Your task to perform on an android device: visit the assistant section in the google photos Image 0: 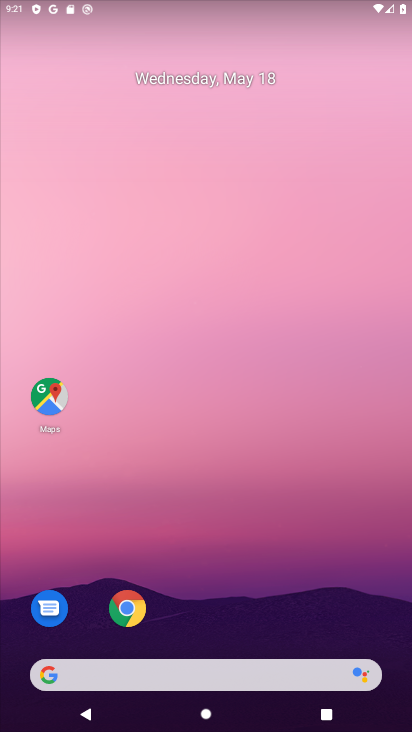
Step 0: drag from (305, 626) to (133, 13)
Your task to perform on an android device: visit the assistant section in the google photos Image 1: 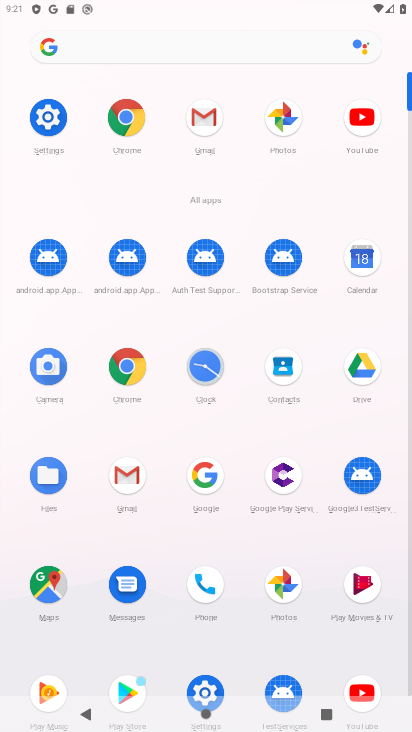
Step 1: click (301, 165)
Your task to perform on an android device: visit the assistant section in the google photos Image 2: 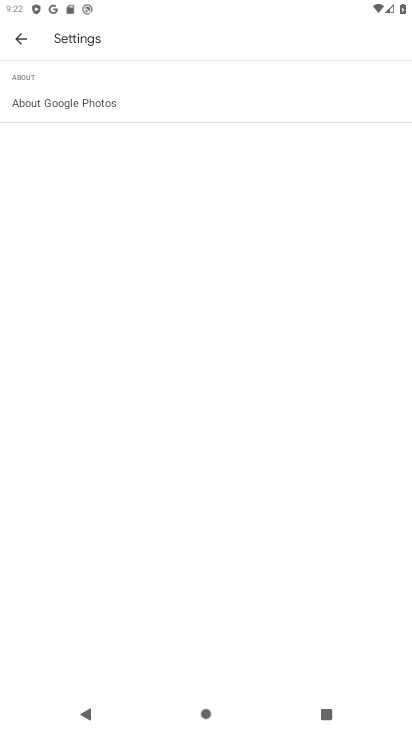
Step 2: click (23, 32)
Your task to perform on an android device: visit the assistant section in the google photos Image 3: 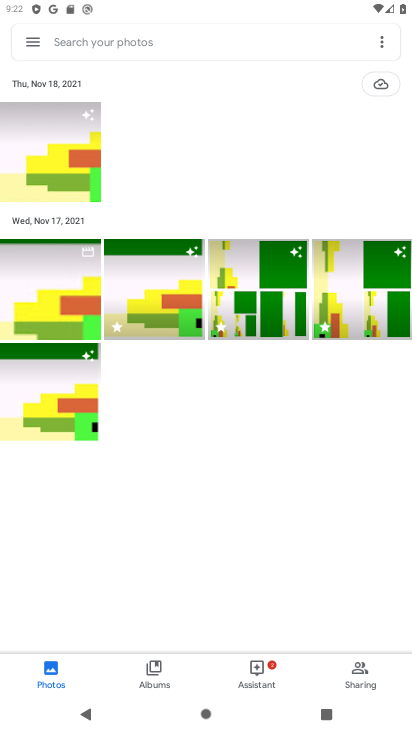
Step 3: click (357, 671)
Your task to perform on an android device: visit the assistant section in the google photos Image 4: 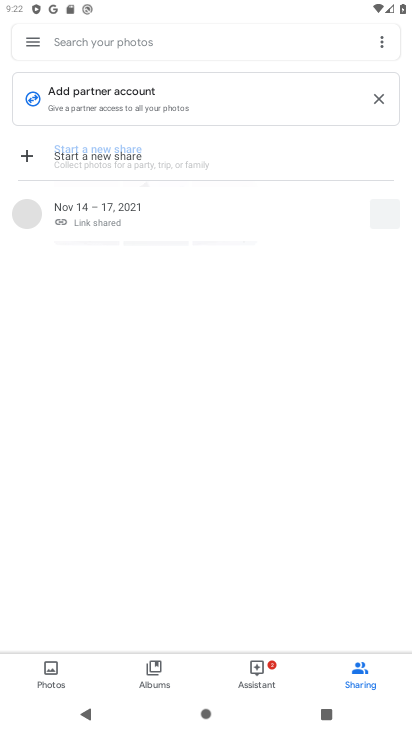
Step 4: click (267, 673)
Your task to perform on an android device: visit the assistant section in the google photos Image 5: 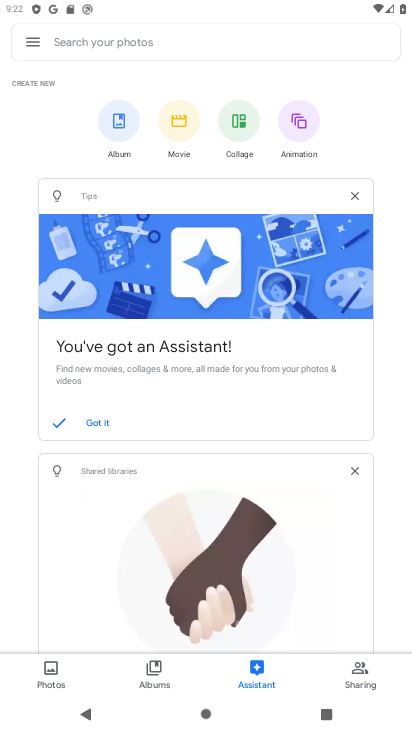
Step 5: task complete